Your task to perform on an android device: open a bookmark in the chrome app Image 0: 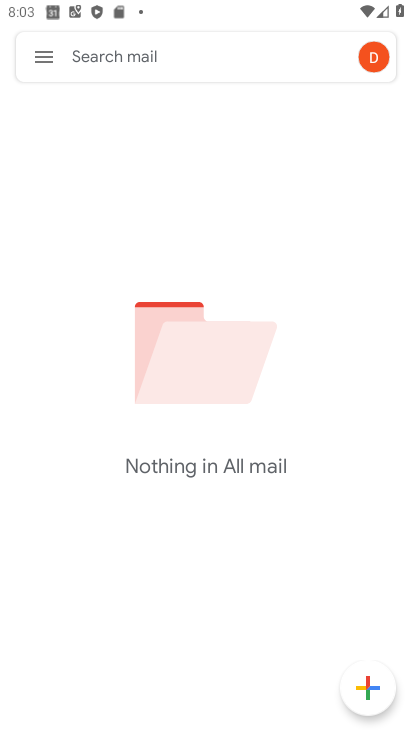
Step 0: press home button
Your task to perform on an android device: open a bookmark in the chrome app Image 1: 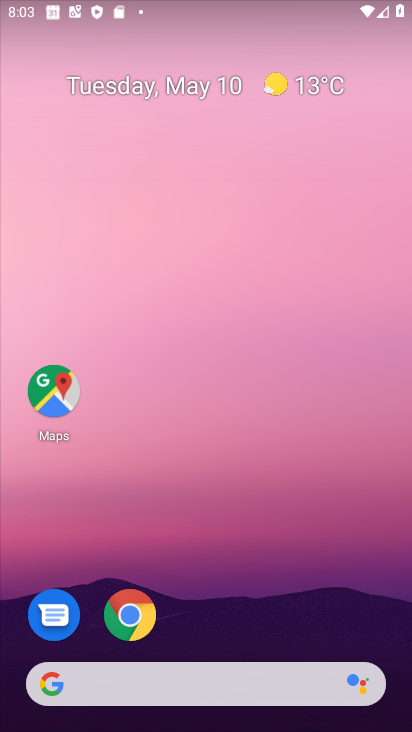
Step 1: click (134, 621)
Your task to perform on an android device: open a bookmark in the chrome app Image 2: 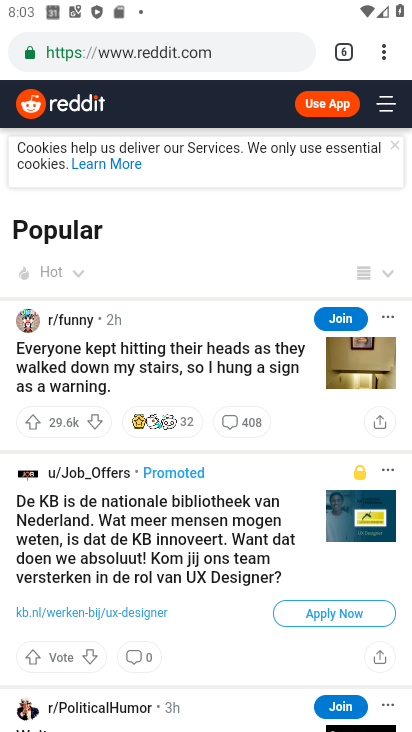
Step 2: click (385, 52)
Your task to perform on an android device: open a bookmark in the chrome app Image 3: 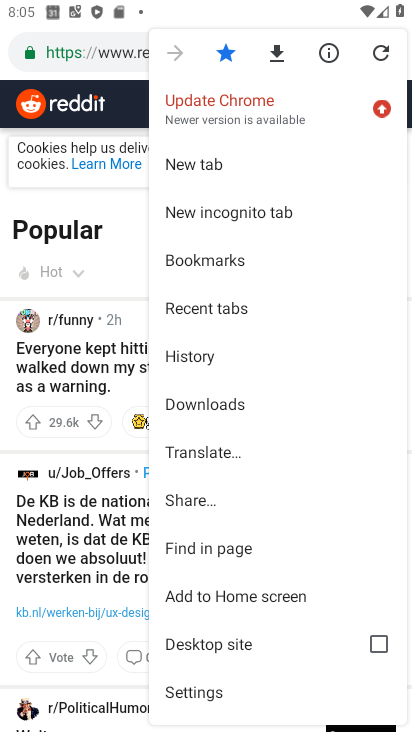
Step 3: click (205, 258)
Your task to perform on an android device: open a bookmark in the chrome app Image 4: 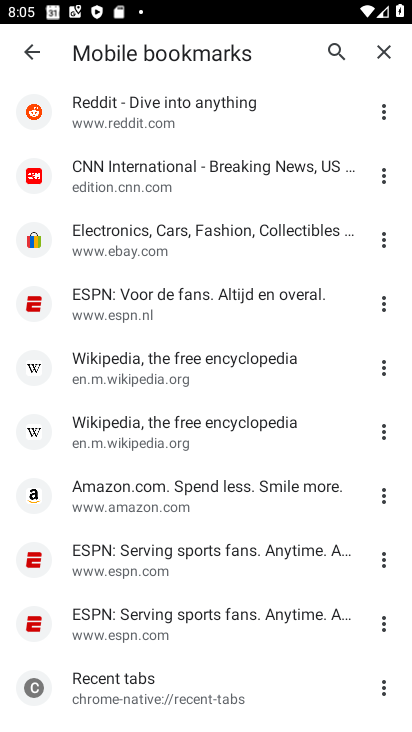
Step 4: task complete